Your task to perform on an android device: turn off smart reply in the gmail app Image 0: 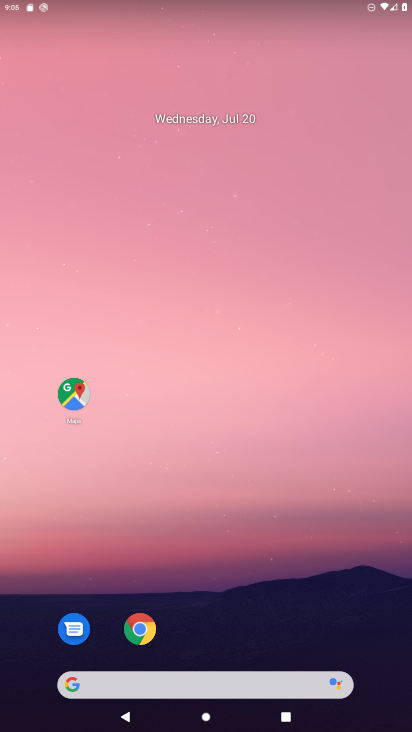
Step 0: drag from (359, 649) to (326, 109)
Your task to perform on an android device: turn off smart reply in the gmail app Image 1: 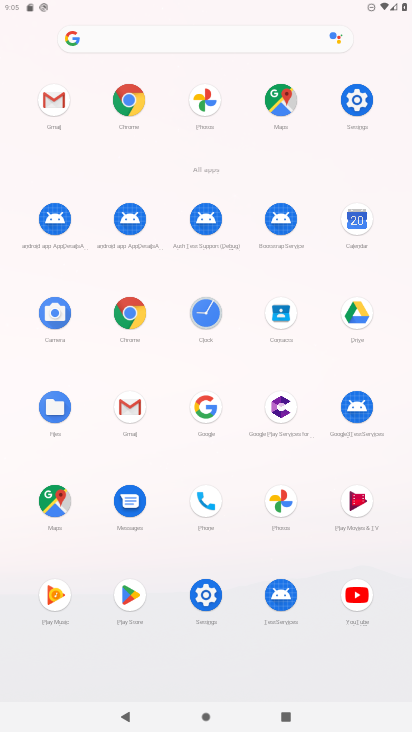
Step 1: click (128, 405)
Your task to perform on an android device: turn off smart reply in the gmail app Image 2: 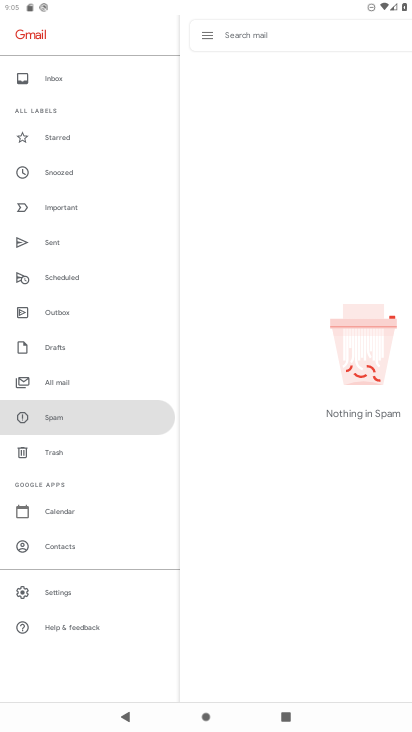
Step 2: click (46, 595)
Your task to perform on an android device: turn off smart reply in the gmail app Image 3: 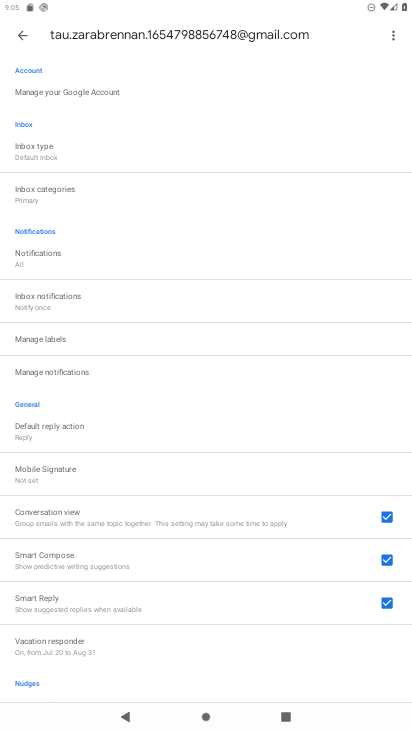
Step 3: click (388, 602)
Your task to perform on an android device: turn off smart reply in the gmail app Image 4: 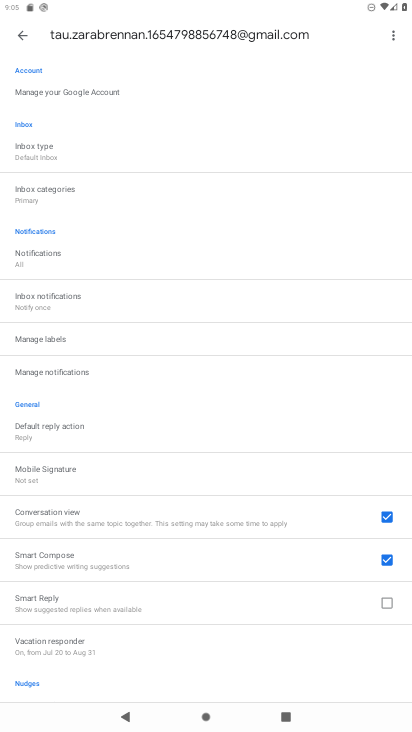
Step 4: task complete